Your task to perform on an android device: Show me recent news Image 0: 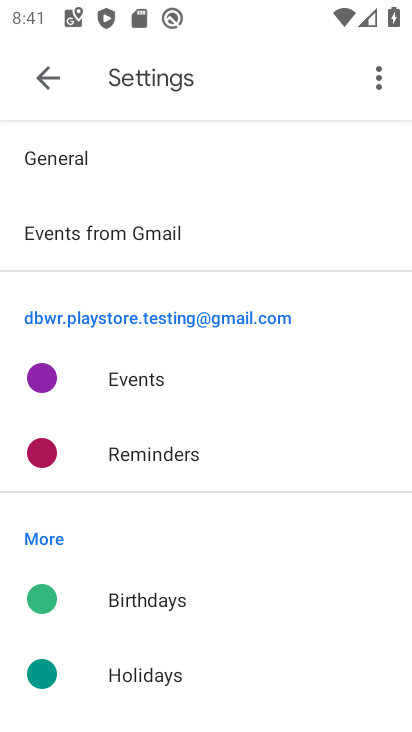
Step 0: press home button
Your task to perform on an android device: Show me recent news Image 1: 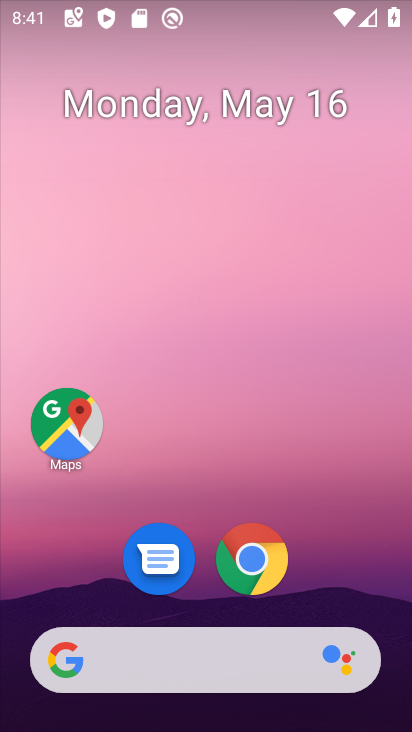
Step 1: drag from (210, 596) to (337, 44)
Your task to perform on an android device: Show me recent news Image 2: 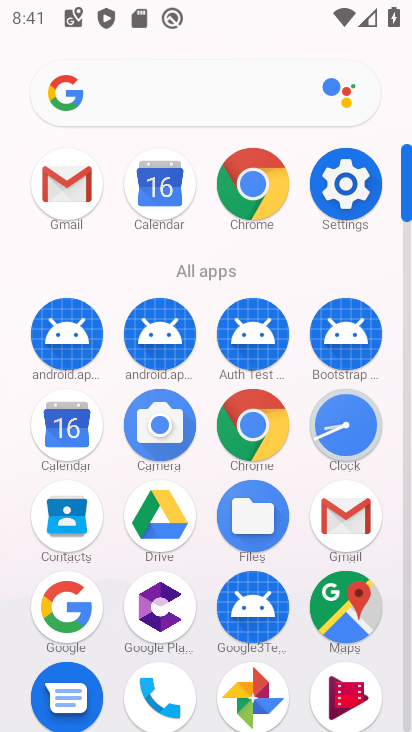
Step 2: click (165, 103)
Your task to perform on an android device: Show me recent news Image 3: 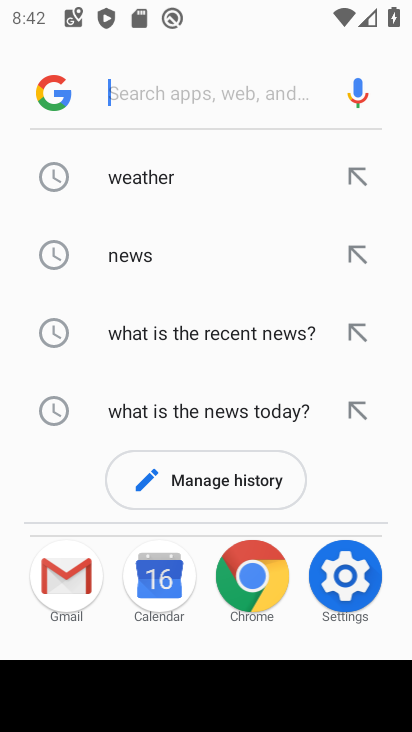
Step 3: type "recent news"
Your task to perform on an android device: Show me recent news Image 4: 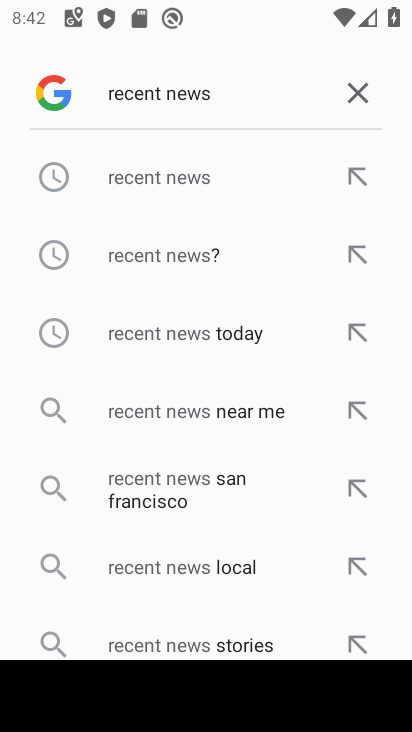
Step 4: click (179, 189)
Your task to perform on an android device: Show me recent news Image 5: 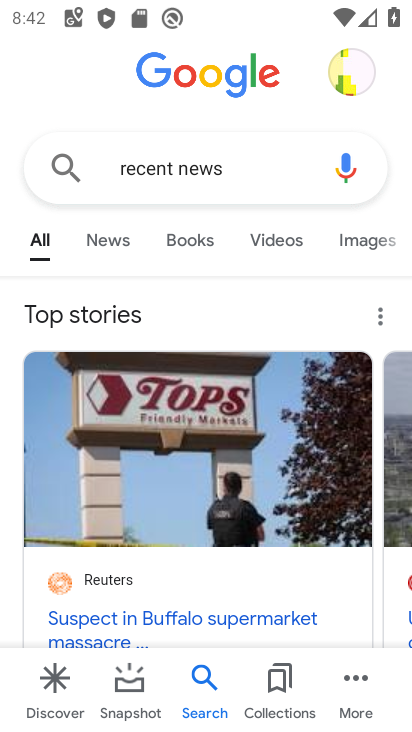
Step 5: click (100, 238)
Your task to perform on an android device: Show me recent news Image 6: 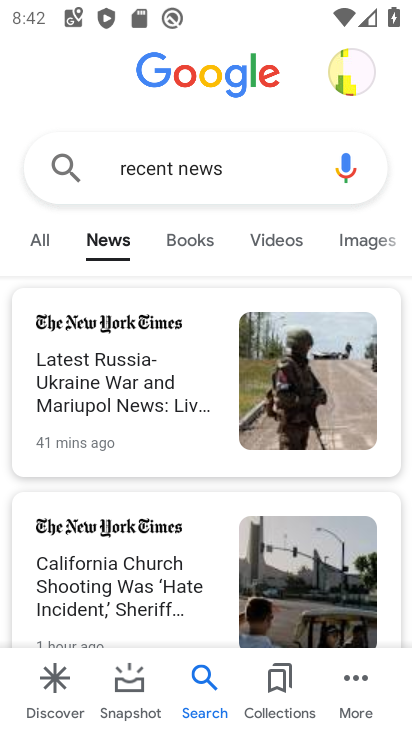
Step 6: task complete